Your task to perform on an android device: turn pop-ups off in chrome Image 0: 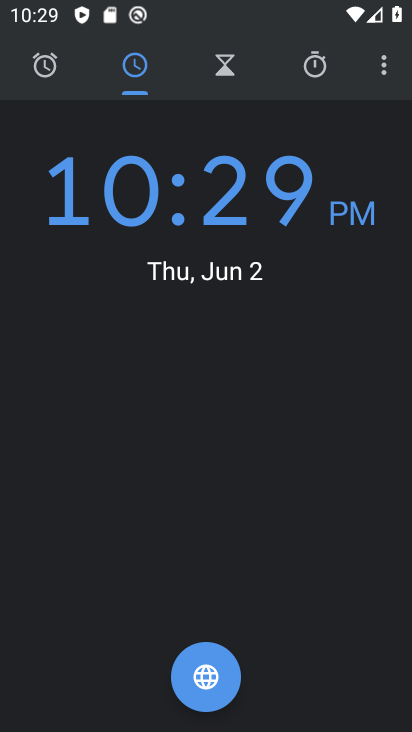
Step 0: press home button
Your task to perform on an android device: turn pop-ups off in chrome Image 1: 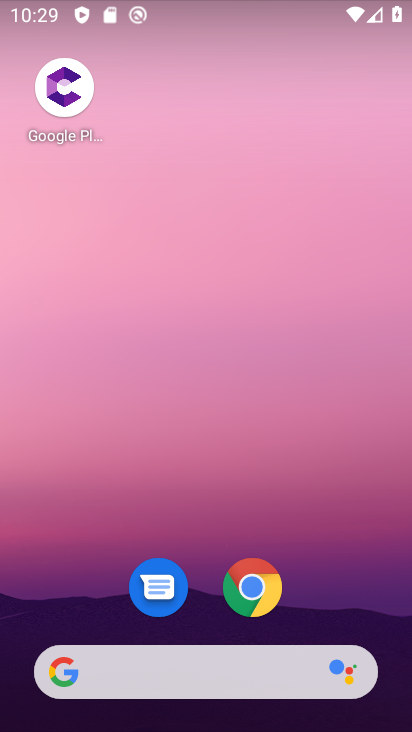
Step 1: drag from (319, 564) to (355, 217)
Your task to perform on an android device: turn pop-ups off in chrome Image 2: 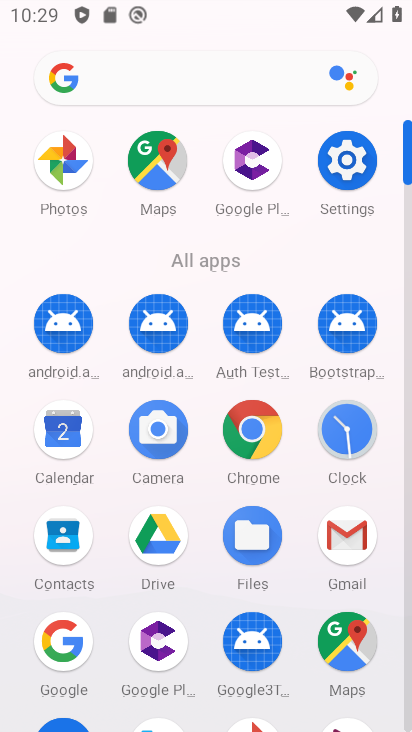
Step 2: click (257, 427)
Your task to perform on an android device: turn pop-ups off in chrome Image 3: 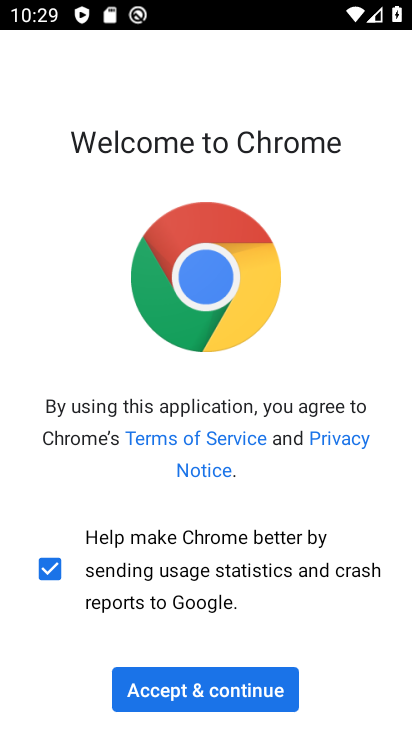
Step 3: click (254, 703)
Your task to perform on an android device: turn pop-ups off in chrome Image 4: 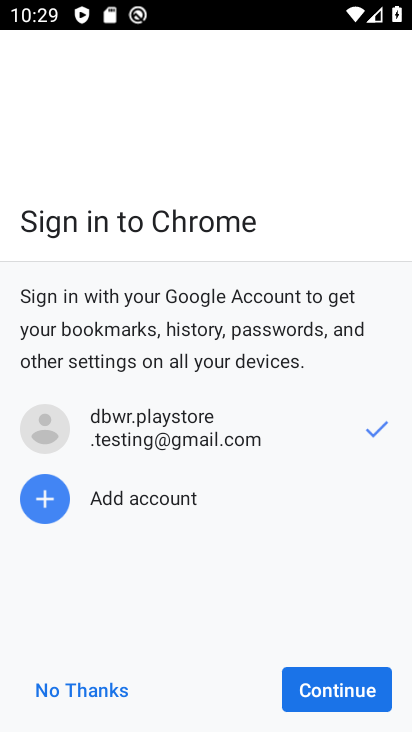
Step 4: click (375, 697)
Your task to perform on an android device: turn pop-ups off in chrome Image 5: 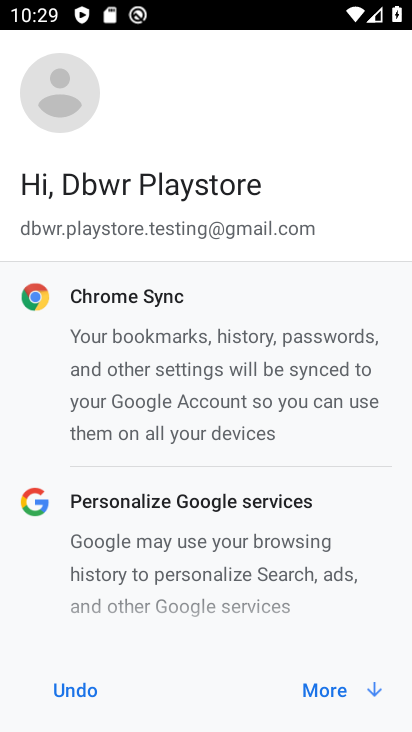
Step 5: click (303, 682)
Your task to perform on an android device: turn pop-ups off in chrome Image 6: 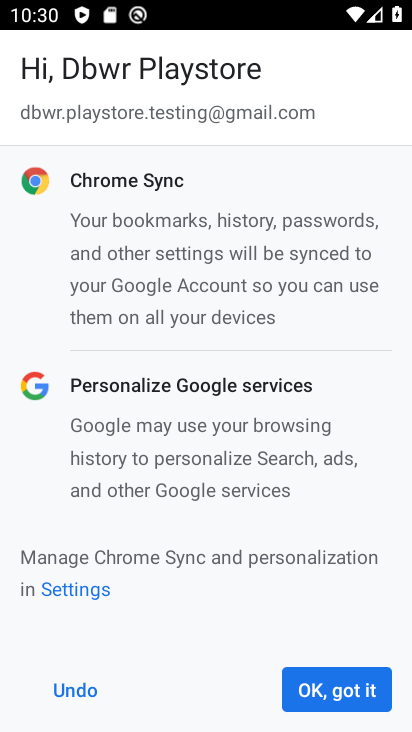
Step 6: click (341, 713)
Your task to perform on an android device: turn pop-ups off in chrome Image 7: 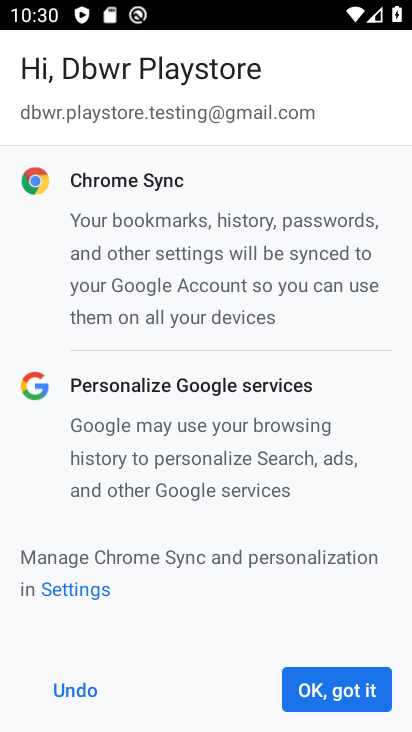
Step 7: click (360, 695)
Your task to perform on an android device: turn pop-ups off in chrome Image 8: 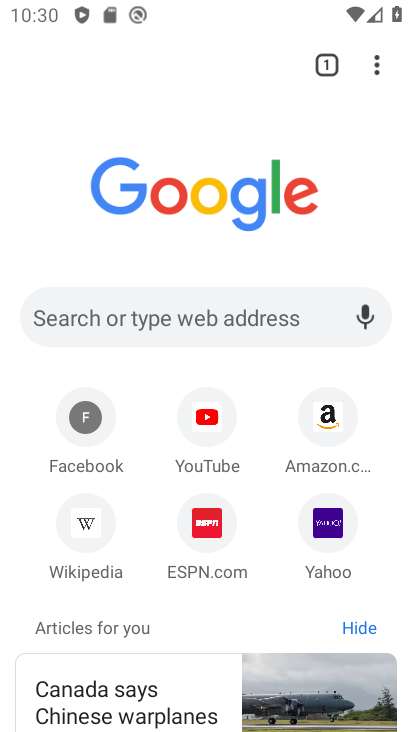
Step 8: click (384, 69)
Your task to perform on an android device: turn pop-ups off in chrome Image 9: 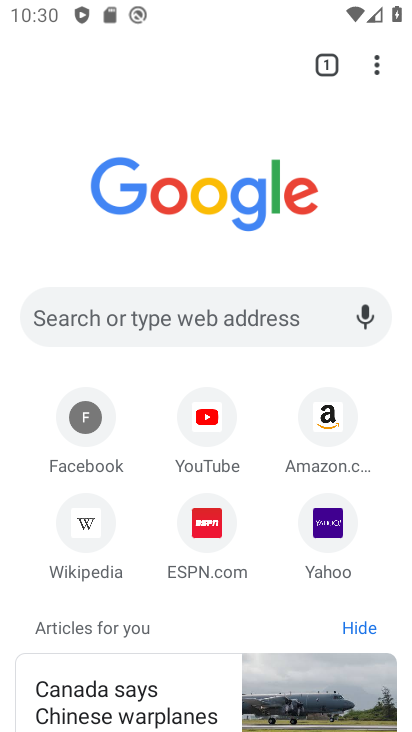
Step 9: click (384, 64)
Your task to perform on an android device: turn pop-ups off in chrome Image 10: 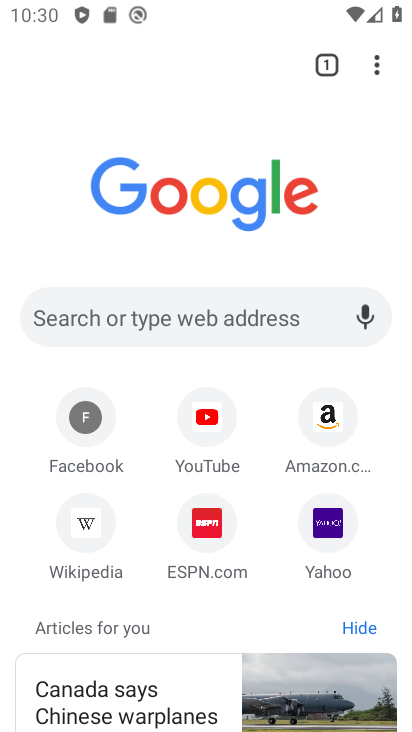
Step 10: drag from (378, 71) to (203, 548)
Your task to perform on an android device: turn pop-ups off in chrome Image 11: 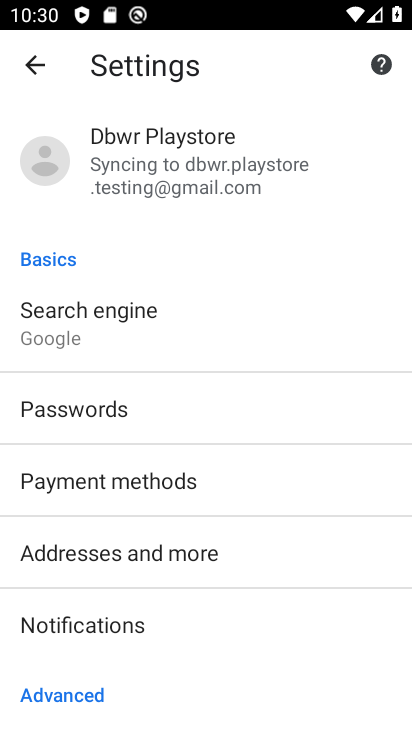
Step 11: drag from (239, 632) to (310, 352)
Your task to perform on an android device: turn pop-ups off in chrome Image 12: 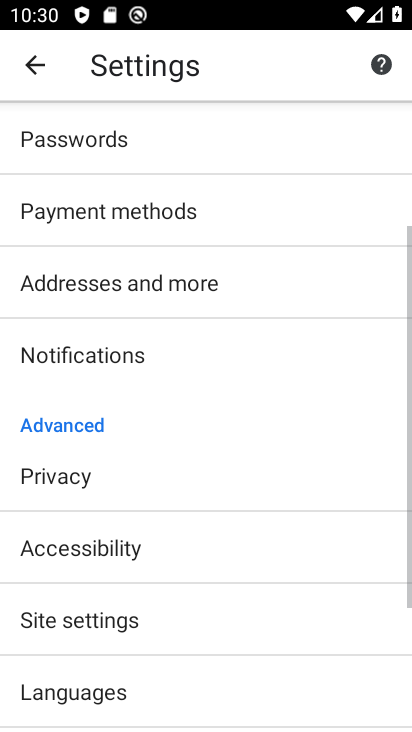
Step 12: drag from (326, 666) to (375, 290)
Your task to perform on an android device: turn pop-ups off in chrome Image 13: 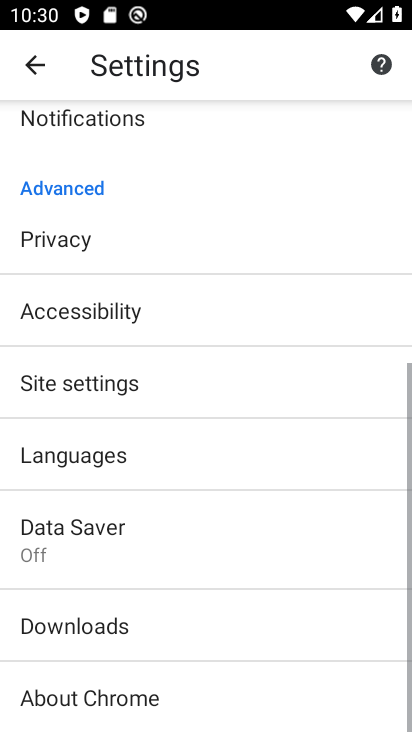
Step 13: drag from (300, 619) to (343, 227)
Your task to perform on an android device: turn pop-ups off in chrome Image 14: 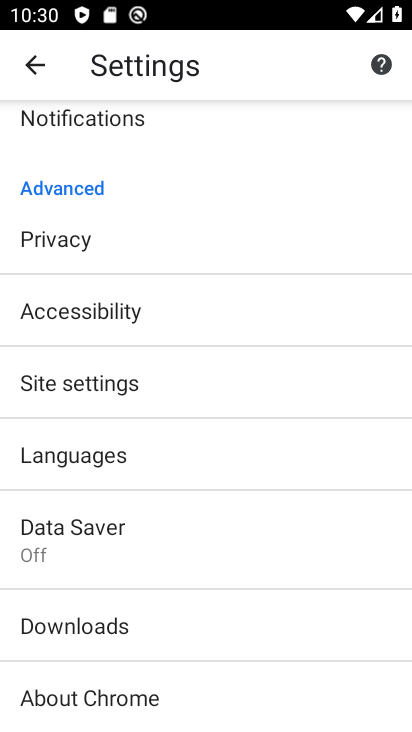
Step 14: click (166, 379)
Your task to perform on an android device: turn pop-ups off in chrome Image 15: 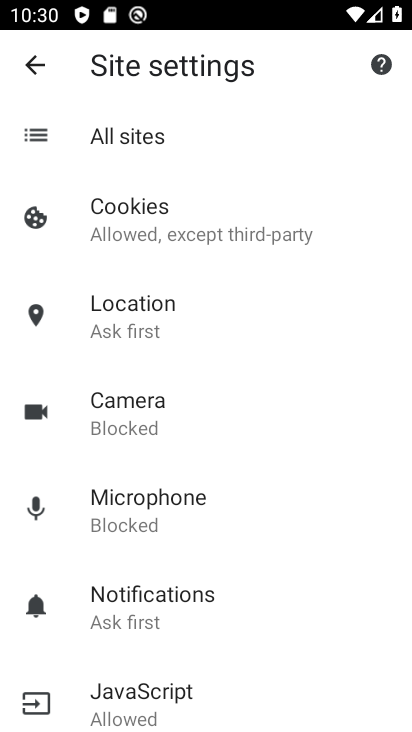
Step 15: drag from (264, 554) to (302, 288)
Your task to perform on an android device: turn pop-ups off in chrome Image 16: 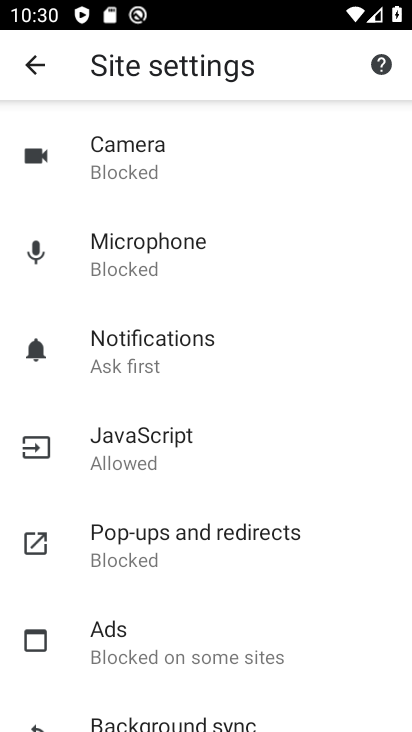
Step 16: click (255, 538)
Your task to perform on an android device: turn pop-ups off in chrome Image 17: 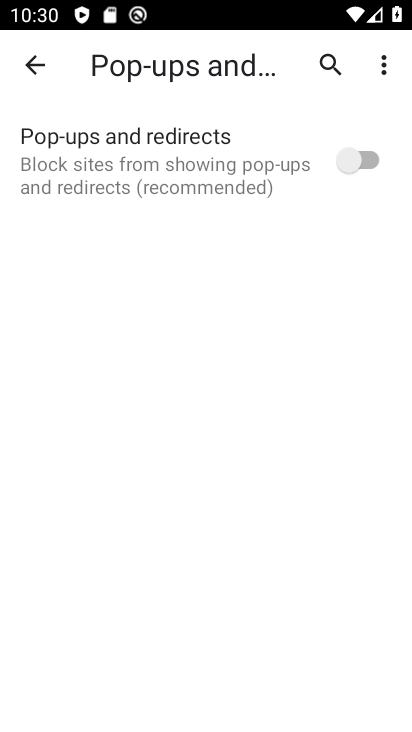
Step 17: task complete